Your task to perform on an android device: change text size in settings app Image 0: 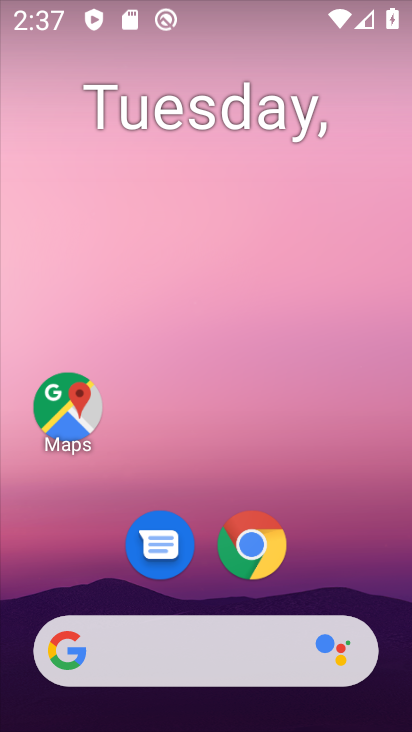
Step 0: drag from (205, 641) to (277, 44)
Your task to perform on an android device: change text size in settings app Image 1: 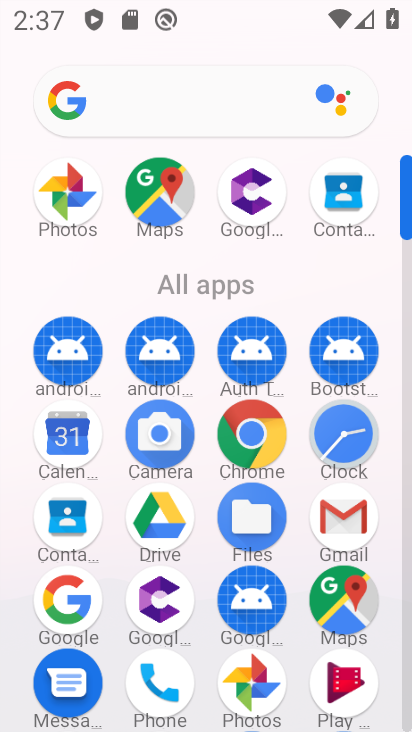
Step 1: drag from (185, 631) to (249, 59)
Your task to perform on an android device: change text size in settings app Image 2: 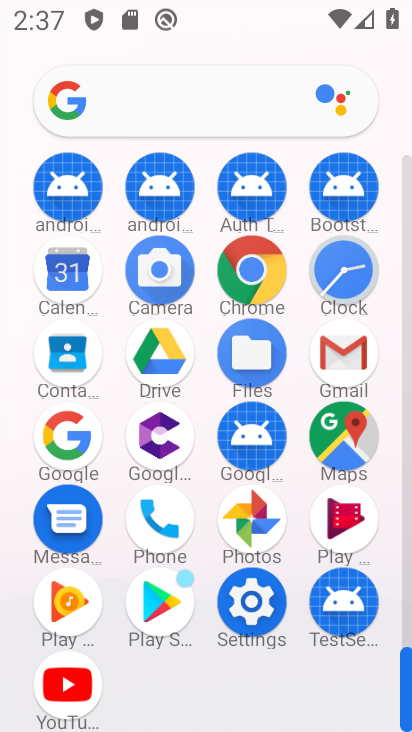
Step 2: click (270, 621)
Your task to perform on an android device: change text size in settings app Image 3: 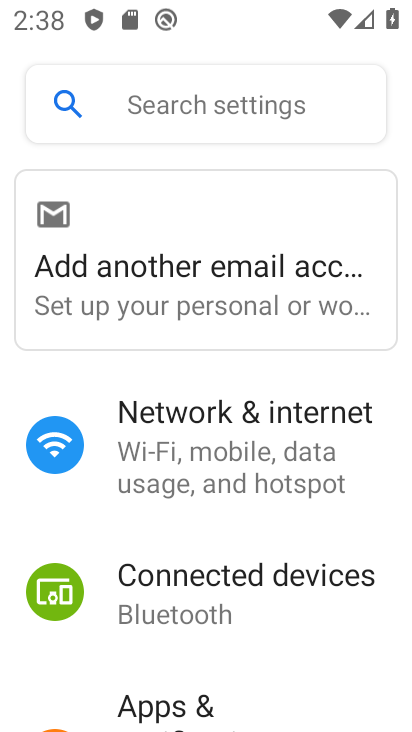
Step 3: drag from (222, 581) to (228, 41)
Your task to perform on an android device: change text size in settings app Image 4: 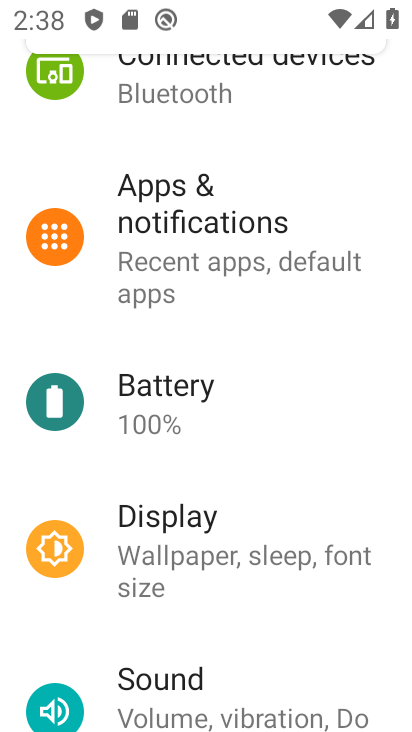
Step 4: click (225, 538)
Your task to perform on an android device: change text size in settings app Image 5: 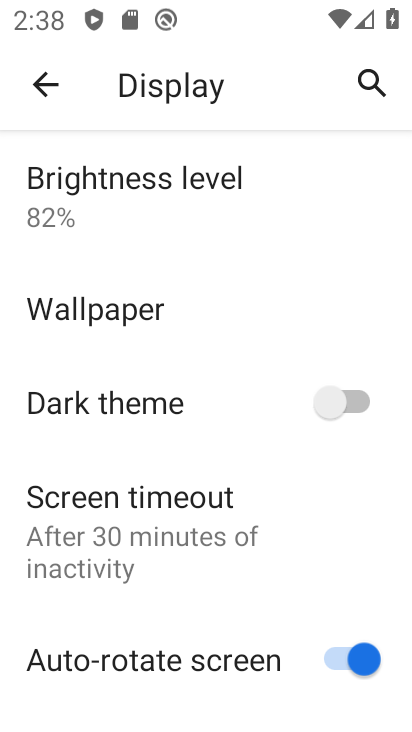
Step 5: drag from (205, 596) to (231, 106)
Your task to perform on an android device: change text size in settings app Image 6: 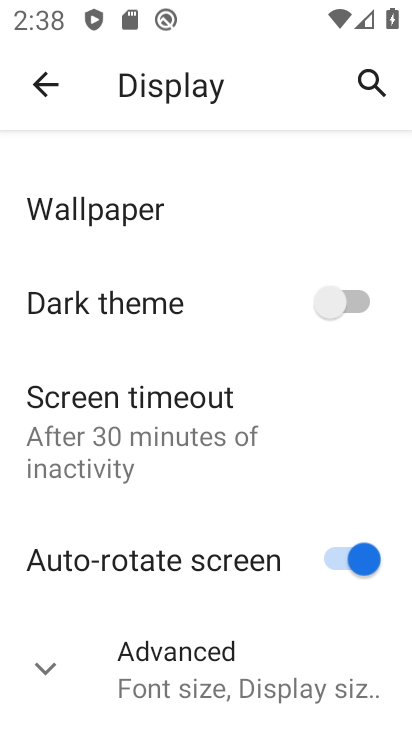
Step 6: click (197, 672)
Your task to perform on an android device: change text size in settings app Image 7: 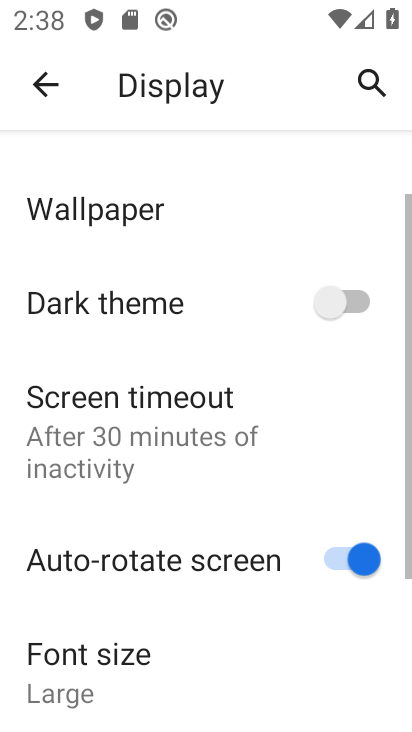
Step 7: click (148, 663)
Your task to perform on an android device: change text size in settings app Image 8: 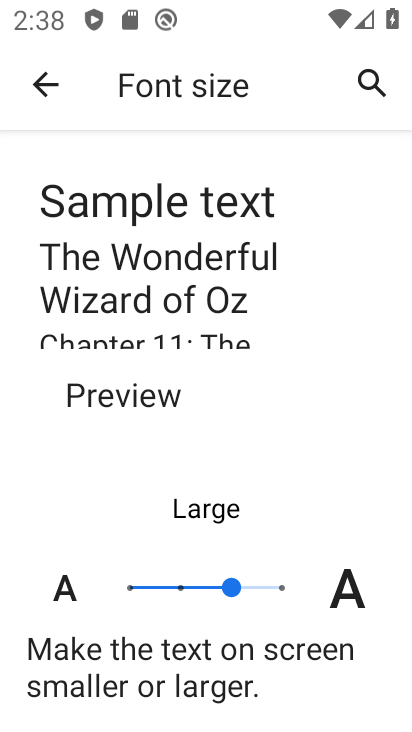
Step 8: click (134, 587)
Your task to perform on an android device: change text size in settings app Image 9: 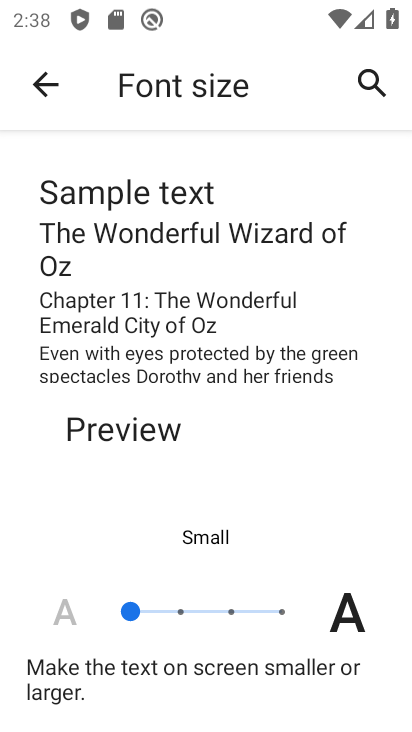
Step 9: task complete